Your task to perform on an android device: Show me recent news Image 0: 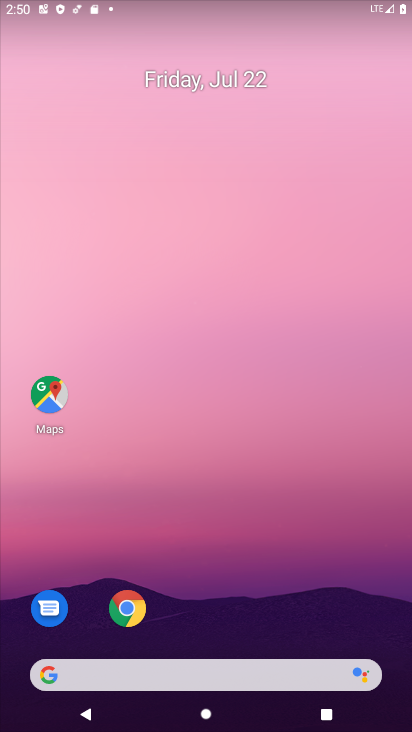
Step 0: drag from (21, 313) to (397, 351)
Your task to perform on an android device: Show me recent news Image 1: 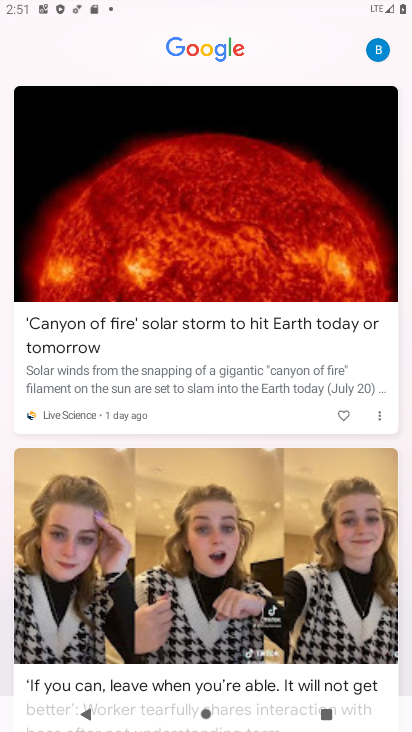
Step 1: task complete